Your task to perform on an android device: empty trash in the gmail app Image 0: 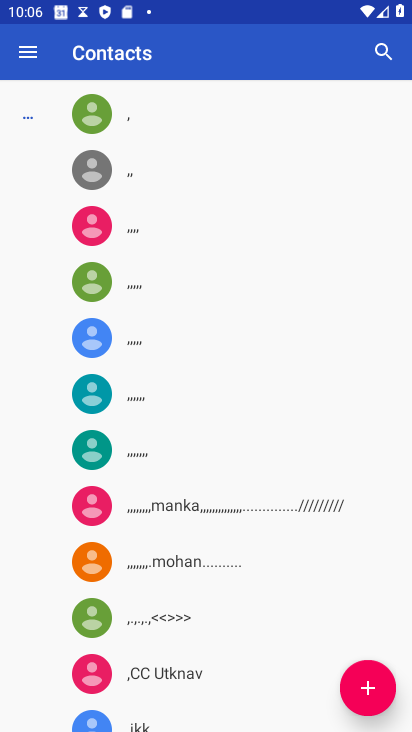
Step 0: press home button
Your task to perform on an android device: empty trash in the gmail app Image 1: 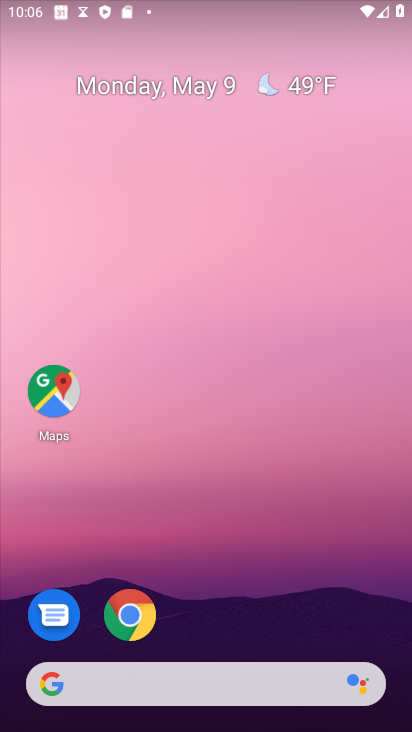
Step 1: drag from (225, 584) to (205, 166)
Your task to perform on an android device: empty trash in the gmail app Image 2: 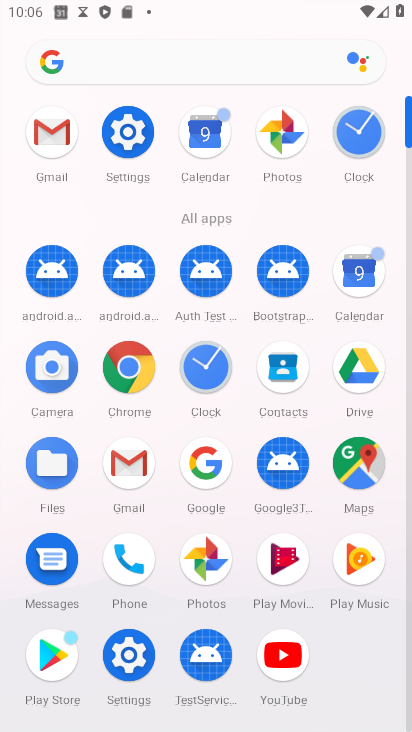
Step 2: click (128, 464)
Your task to perform on an android device: empty trash in the gmail app Image 3: 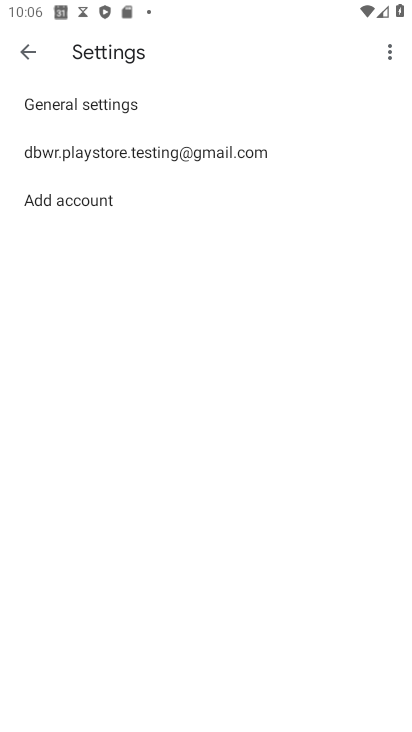
Step 3: press back button
Your task to perform on an android device: empty trash in the gmail app Image 4: 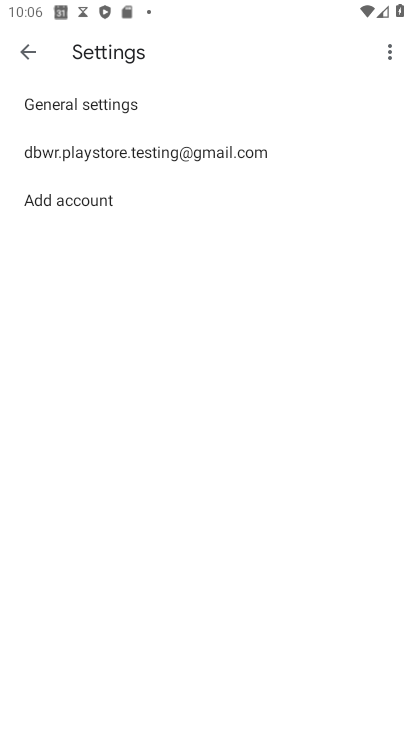
Step 4: press back button
Your task to perform on an android device: empty trash in the gmail app Image 5: 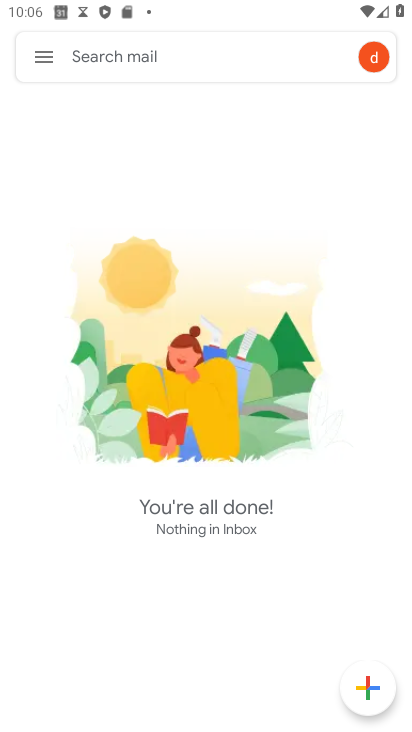
Step 5: click (45, 51)
Your task to perform on an android device: empty trash in the gmail app Image 6: 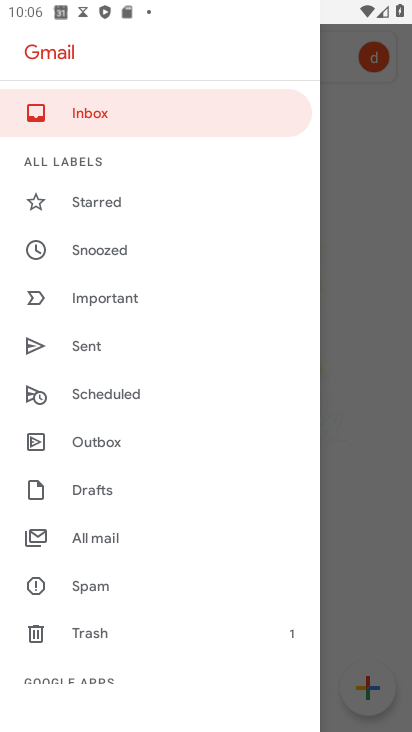
Step 6: click (119, 636)
Your task to perform on an android device: empty trash in the gmail app Image 7: 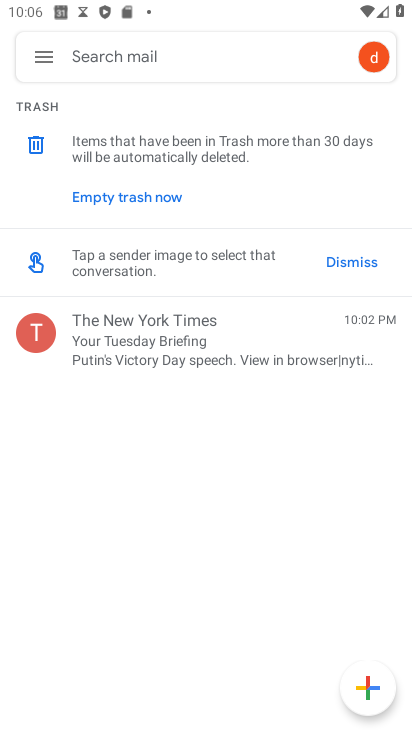
Step 7: click (120, 192)
Your task to perform on an android device: empty trash in the gmail app Image 8: 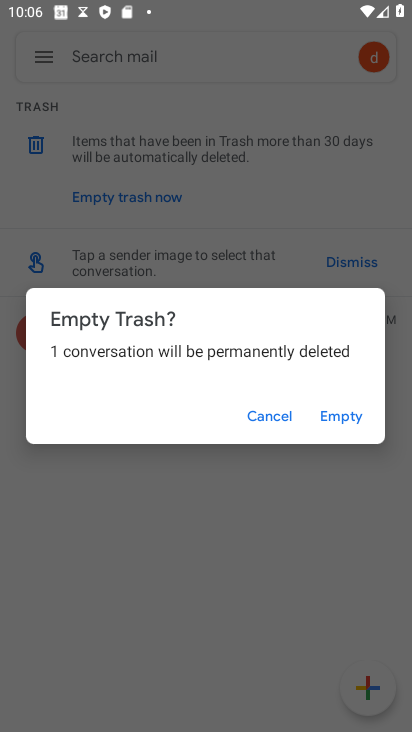
Step 8: click (355, 414)
Your task to perform on an android device: empty trash in the gmail app Image 9: 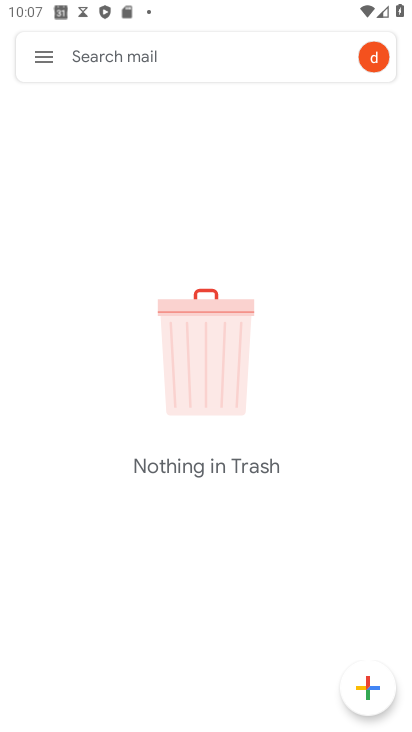
Step 9: task complete